Your task to perform on an android device: Open Google Image 0: 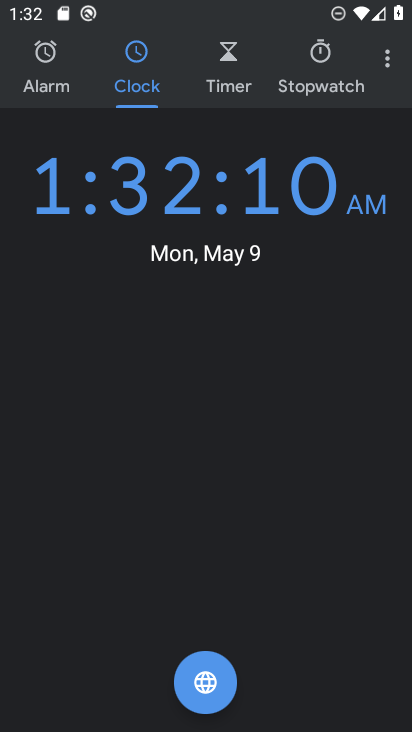
Step 0: press home button
Your task to perform on an android device: Open Google Image 1: 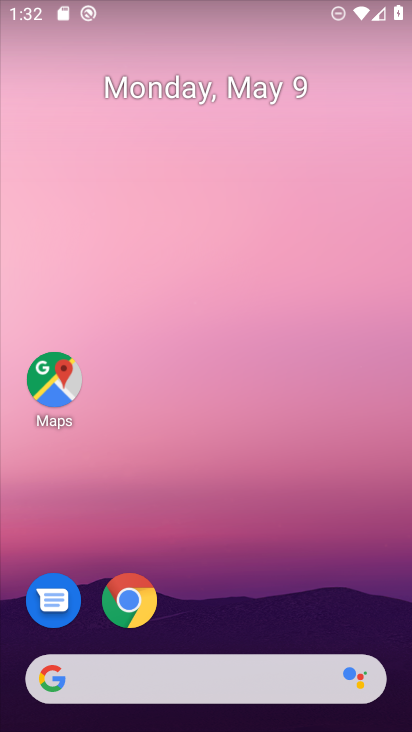
Step 1: drag from (200, 683) to (355, 197)
Your task to perform on an android device: Open Google Image 2: 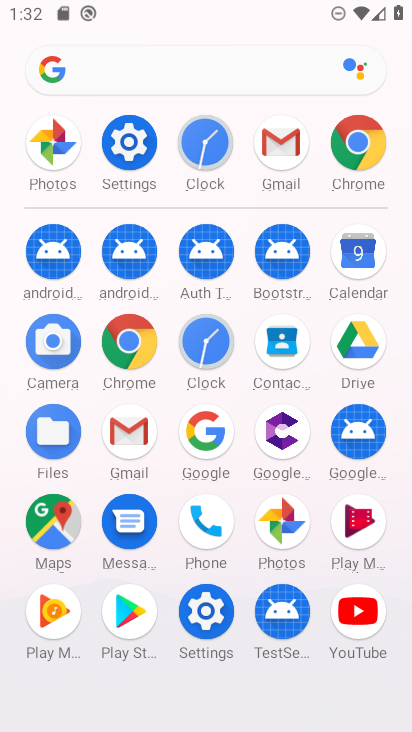
Step 2: click (215, 437)
Your task to perform on an android device: Open Google Image 3: 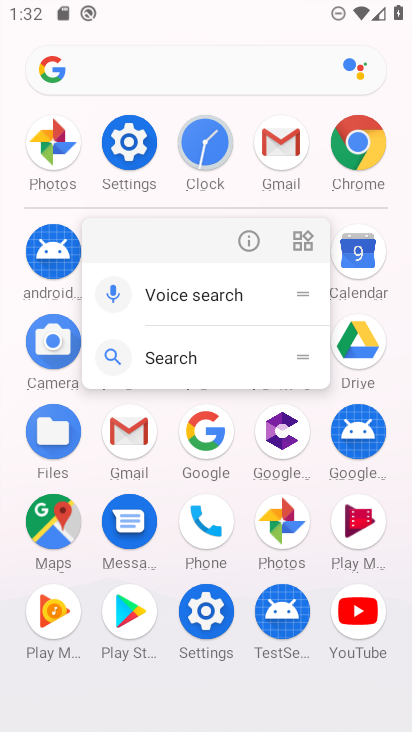
Step 3: click (209, 437)
Your task to perform on an android device: Open Google Image 4: 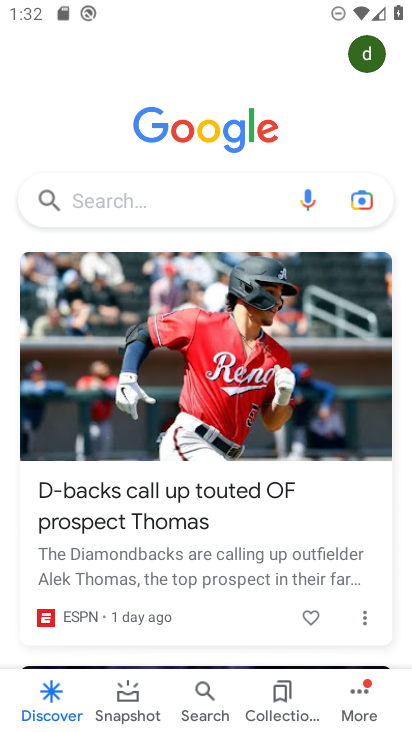
Step 4: task complete